Your task to perform on an android device: Go to settings Image 0: 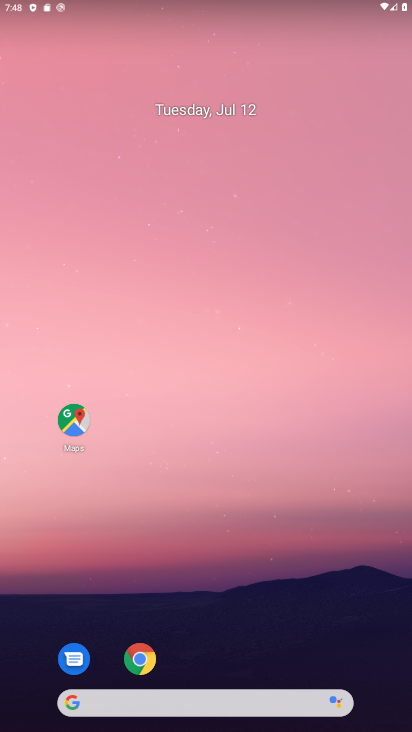
Step 0: click (217, 660)
Your task to perform on an android device: Go to settings Image 1: 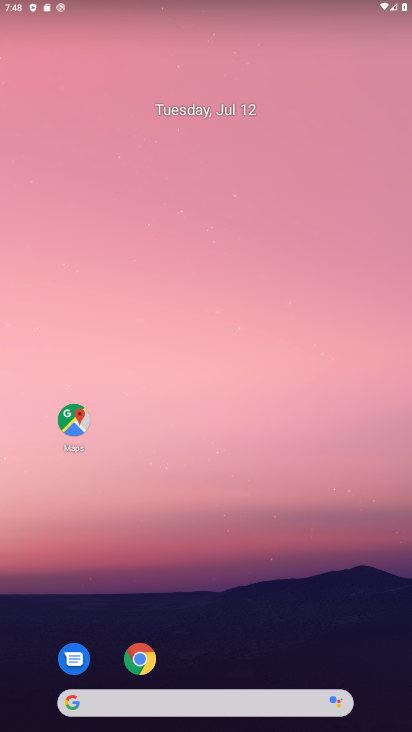
Step 1: drag from (217, 254) to (226, 146)
Your task to perform on an android device: Go to settings Image 2: 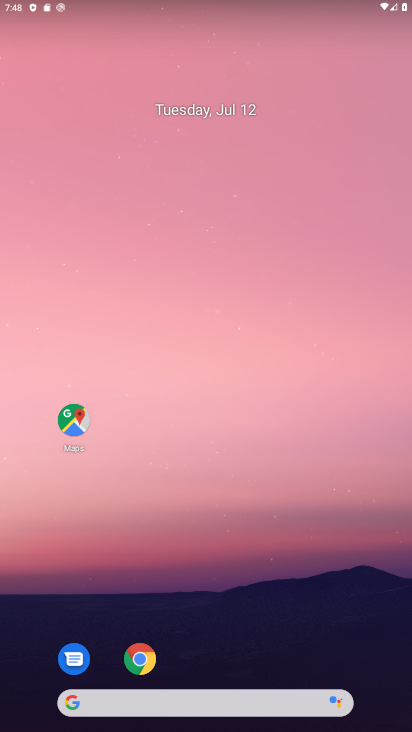
Step 2: click (167, 12)
Your task to perform on an android device: Go to settings Image 3: 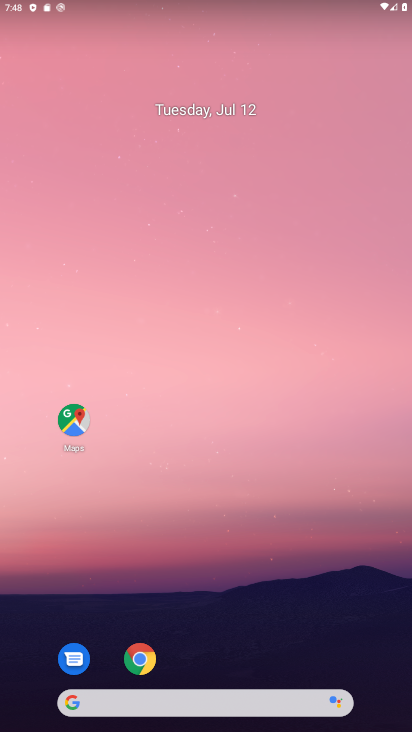
Step 3: drag from (216, 475) to (193, 55)
Your task to perform on an android device: Go to settings Image 4: 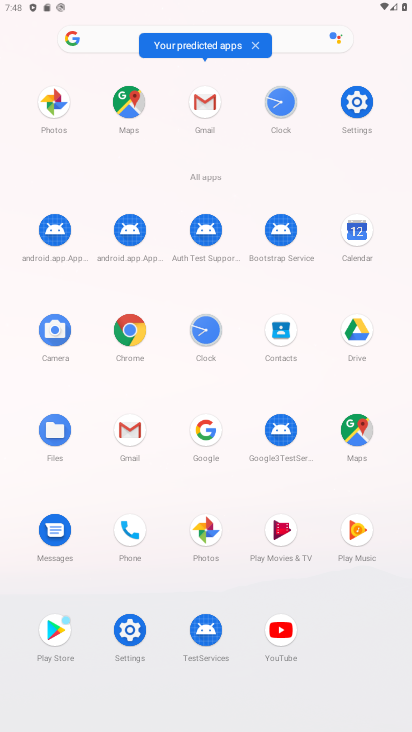
Step 4: click (358, 115)
Your task to perform on an android device: Go to settings Image 5: 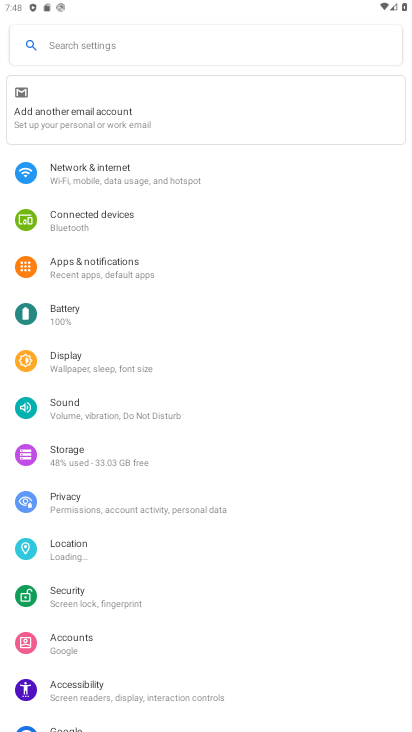
Step 5: task complete